Your task to perform on an android device: add a label to a message in the gmail app Image 0: 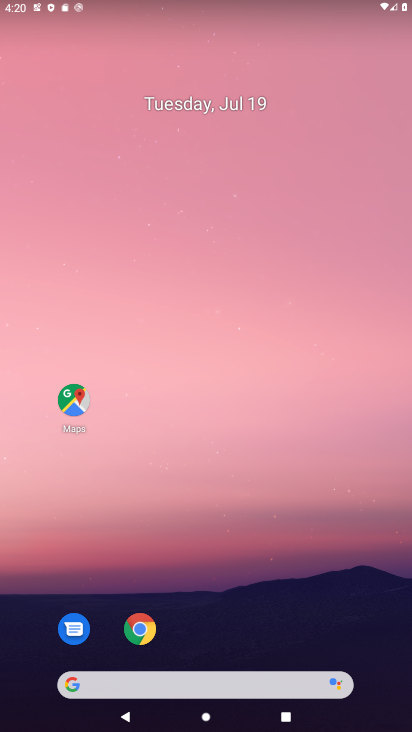
Step 0: drag from (214, 610) to (291, 55)
Your task to perform on an android device: add a label to a message in the gmail app Image 1: 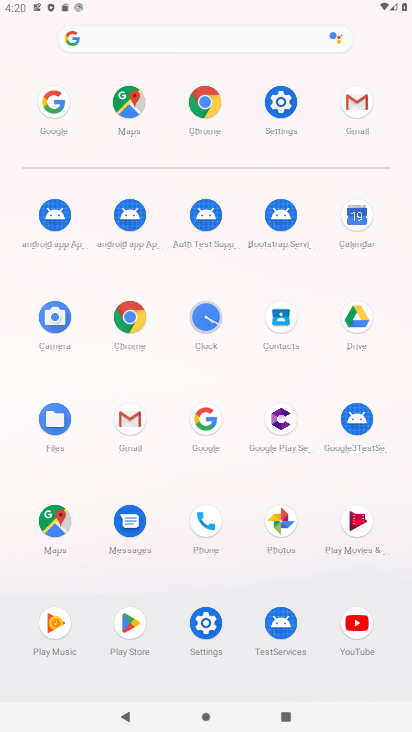
Step 1: click (127, 425)
Your task to perform on an android device: add a label to a message in the gmail app Image 2: 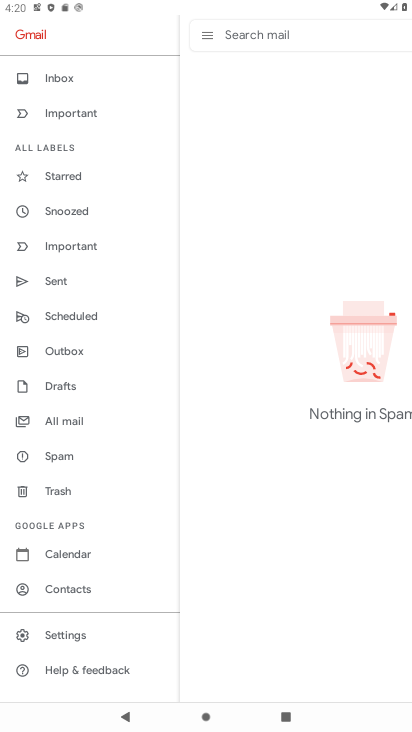
Step 2: click (59, 76)
Your task to perform on an android device: add a label to a message in the gmail app Image 3: 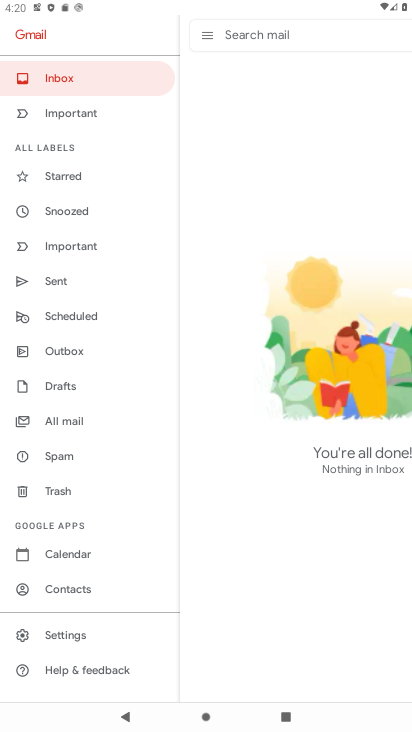
Step 3: task complete